Your task to perform on an android device: open chrome privacy settings Image 0: 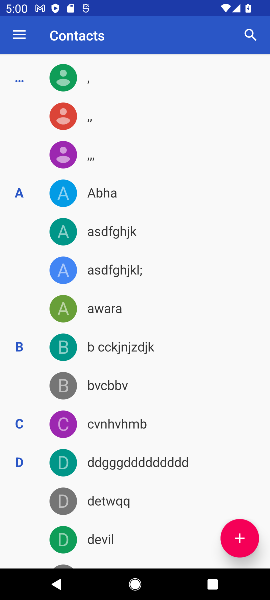
Step 0: press home button
Your task to perform on an android device: open chrome privacy settings Image 1: 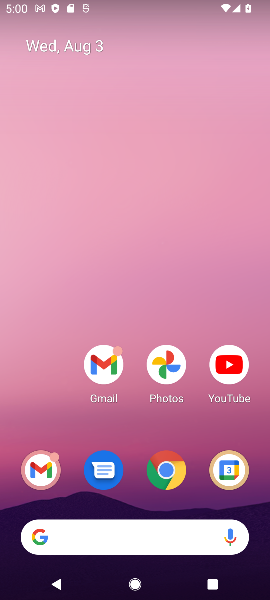
Step 1: drag from (192, 427) to (194, 45)
Your task to perform on an android device: open chrome privacy settings Image 2: 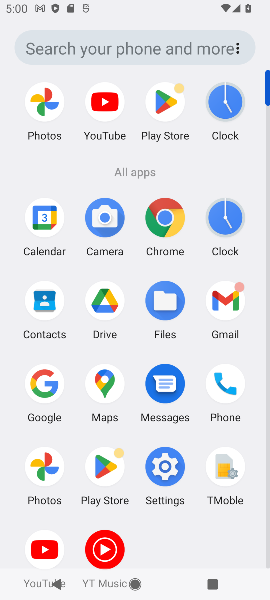
Step 2: click (168, 215)
Your task to perform on an android device: open chrome privacy settings Image 3: 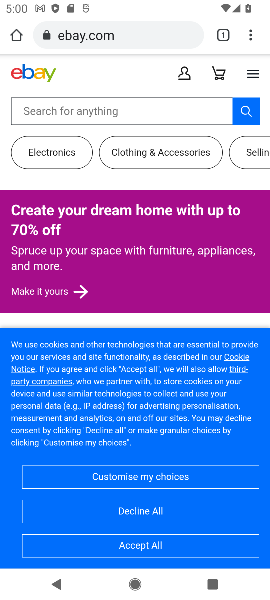
Step 3: click (253, 29)
Your task to perform on an android device: open chrome privacy settings Image 4: 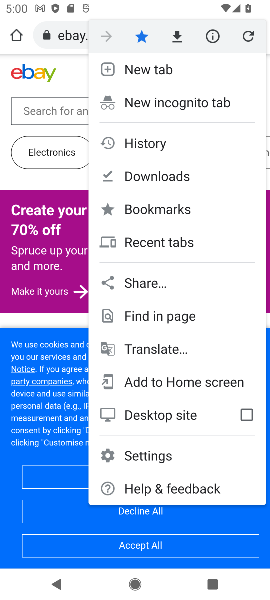
Step 4: click (173, 450)
Your task to perform on an android device: open chrome privacy settings Image 5: 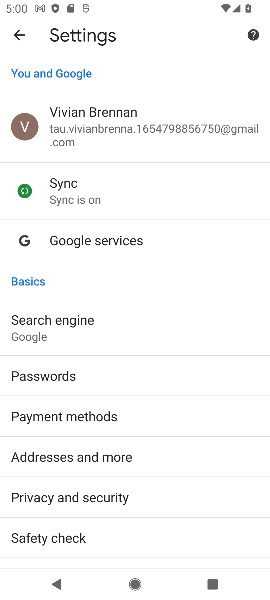
Step 5: drag from (153, 508) to (164, 122)
Your task to perform on an android device: open chrome privacy settings Image 6: 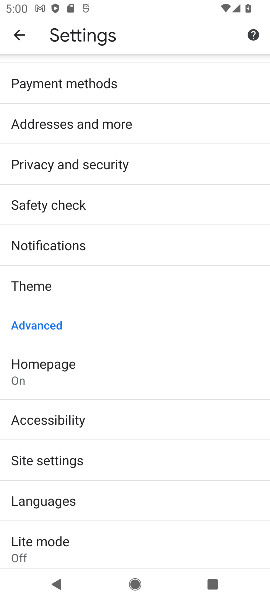
Step 6: drag from (116, 417) to (148, 177)
Your task to perform on an android device: open chrome privacy settings Image 7: 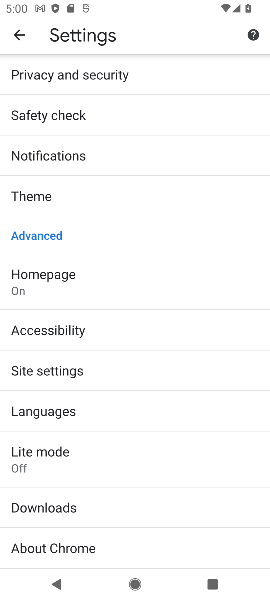
Step 7: drag from (162, 139) to (164, 285)
Your task to perform on an android device: open chrome privacy settings Image 8: 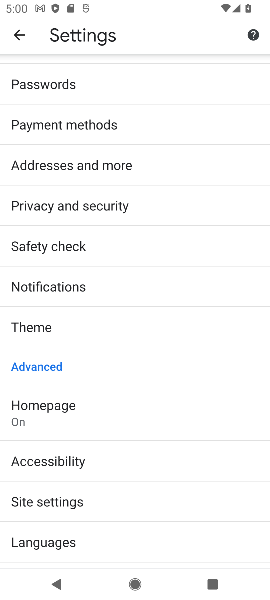
Step 8: click (104, 207)
Your task to perform on an android device: open chrome privacy settings Image 9: 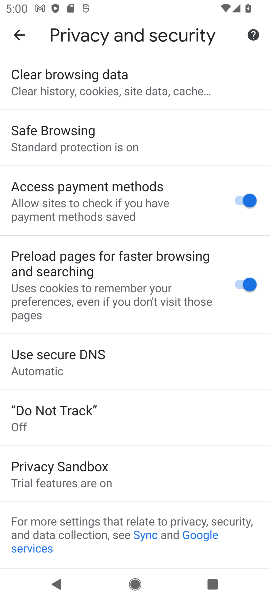
Step 9: task complete